Your task to perform on an android device: Go to Google Image 0: 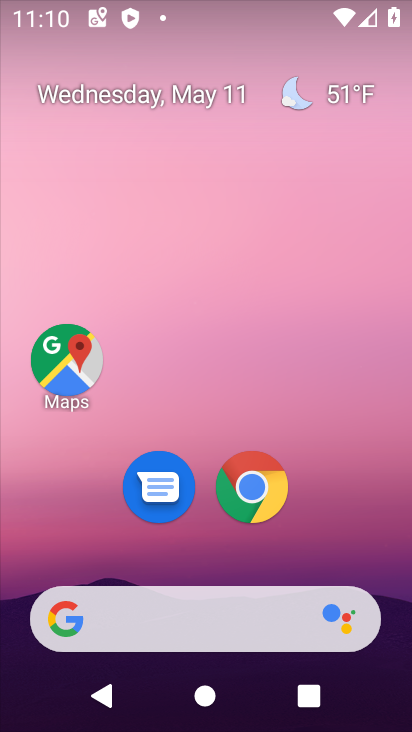
Step 0: drag from (327, 542) to (238, 94)
Your task to perform on an android device: Go to Google Image 1: 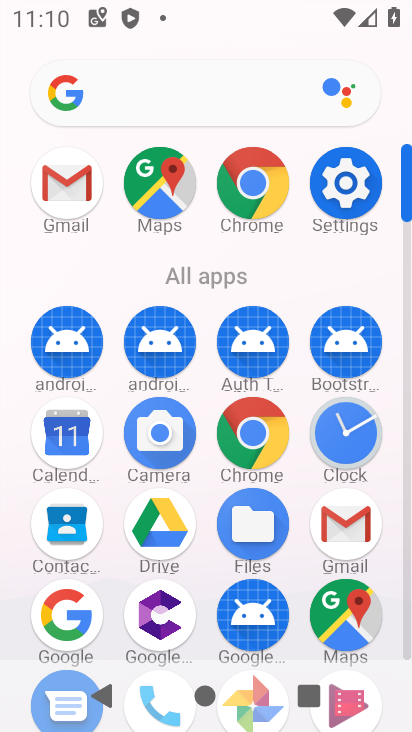
Step 1: click (72, 619)
Your task to perform on an android device: Go to Google Image 2: 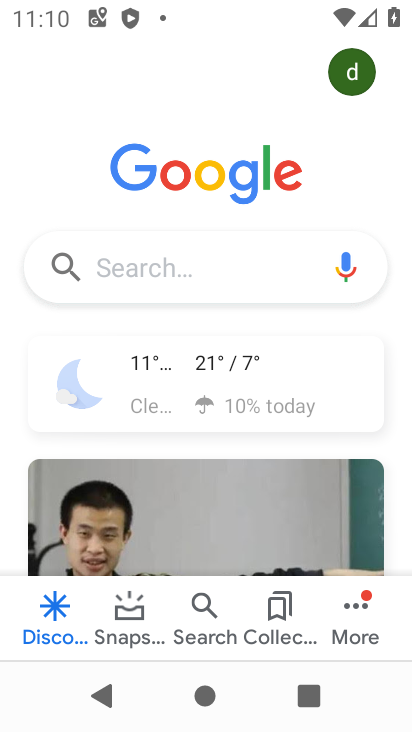
Step 2: task complete